Your task to perform on an android device: Open the web browser Image 0: 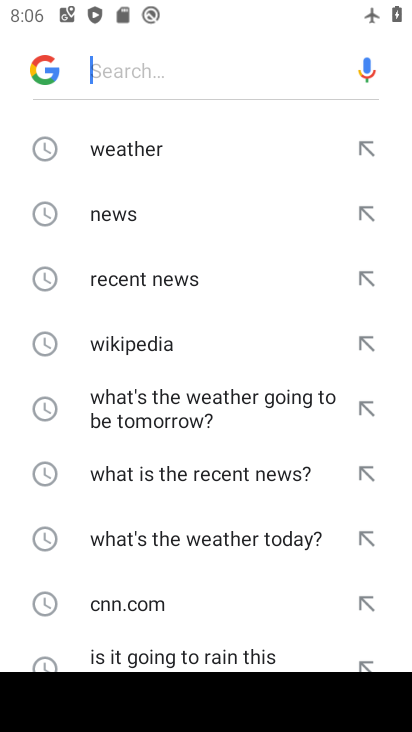
Step 0: task complete